Your task to perform on an android device: change the upload size in google photos Image 0: 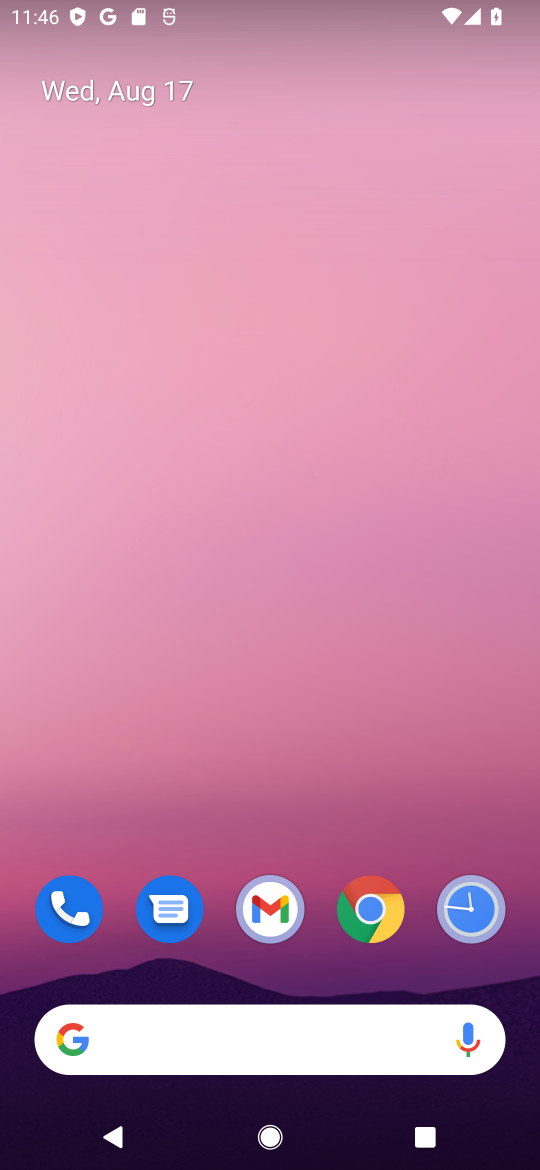
Step 0: drag from (270, 792) to (237, 16)
Your task to perform on an android device: change the upload size in google photos Image 1: 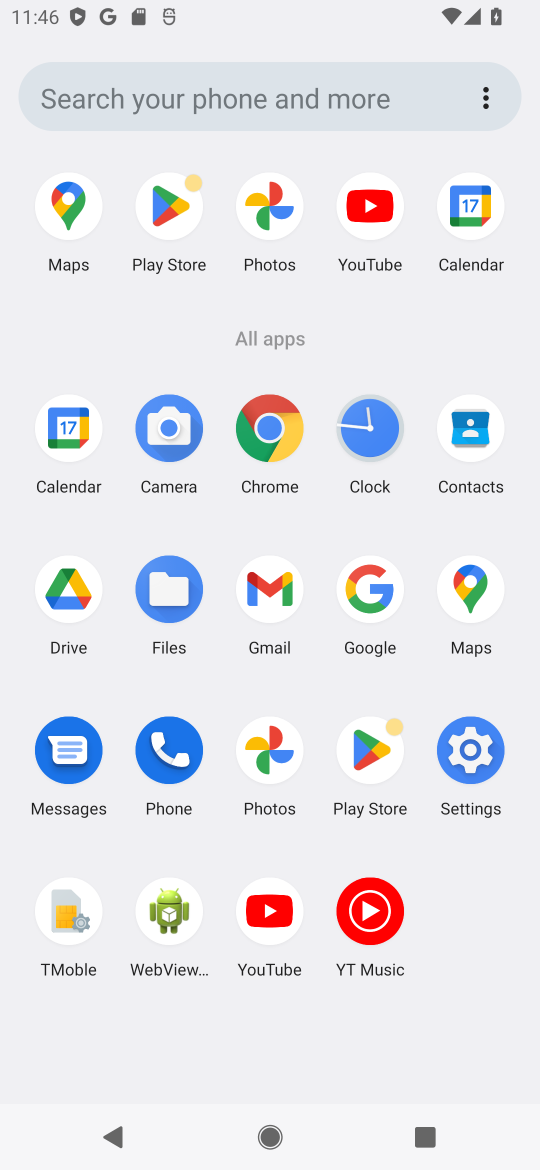
Step 1: click (268, 206)
Your task to perform on an android device: change the upload size in google photos Image 2: 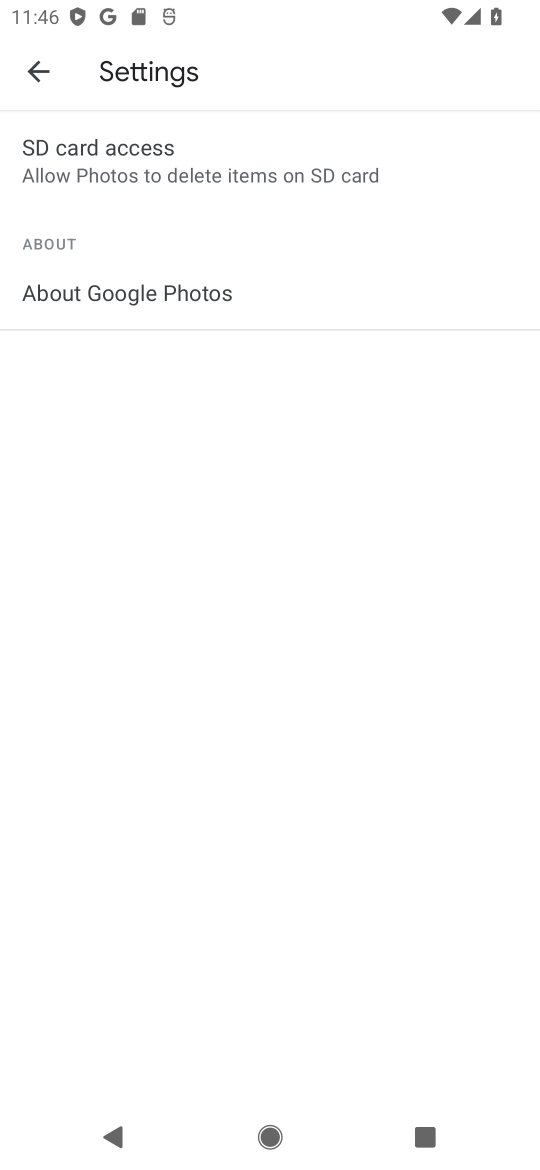
Step 2: click (36, 67)
Your task to perform on an android device: change the upload size in google photos Image 3: 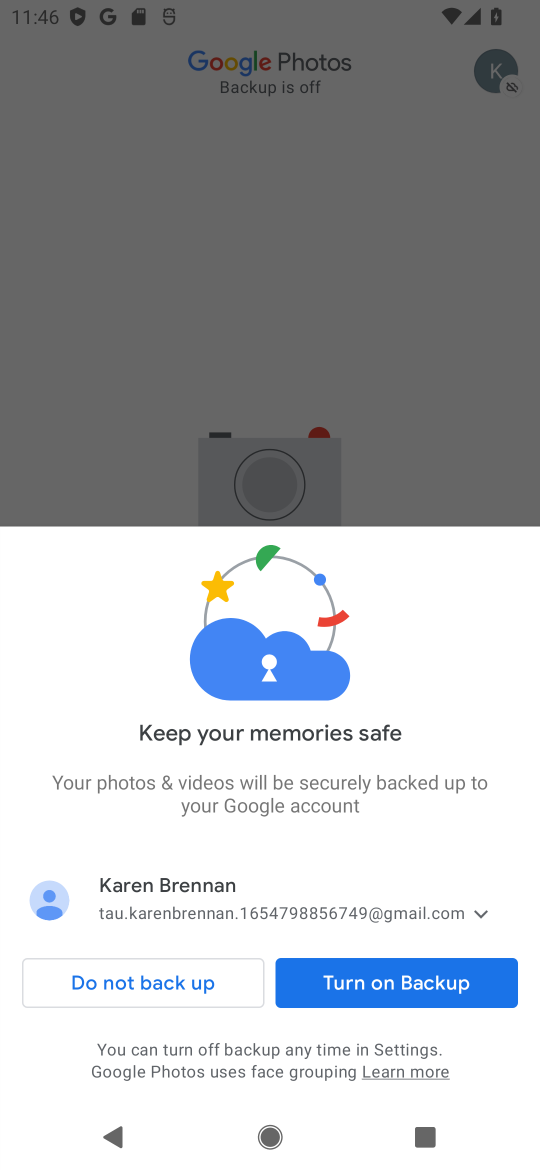
Step 3: click (182, 978)
Your task to perform on an android device: change the upload size in google photos Image 4: 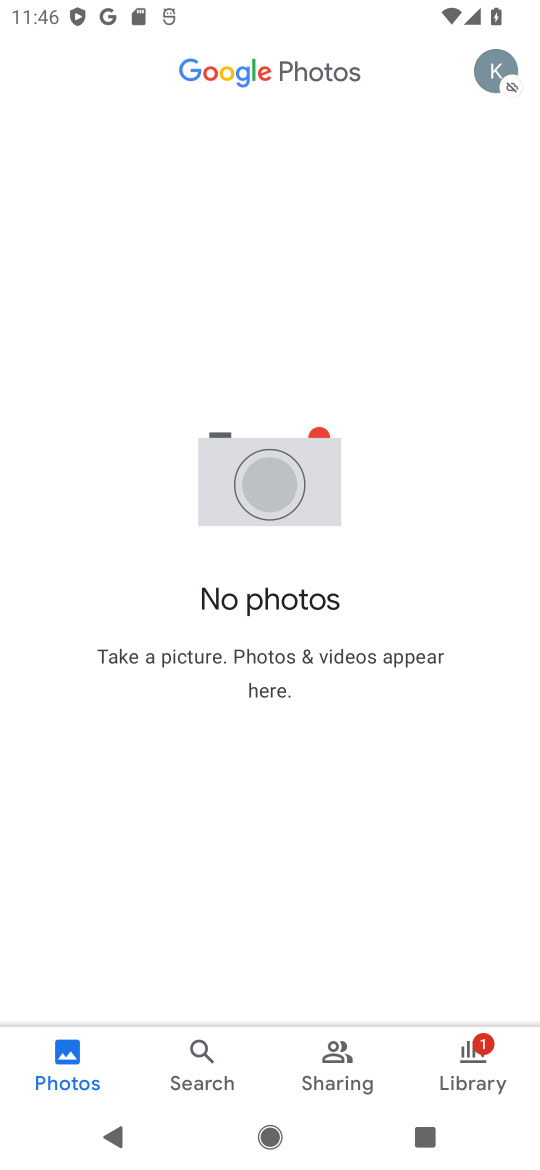
Step 4: click (466, 1062)
Your task to perform on an android device: change the upload size in google photos Image 5: 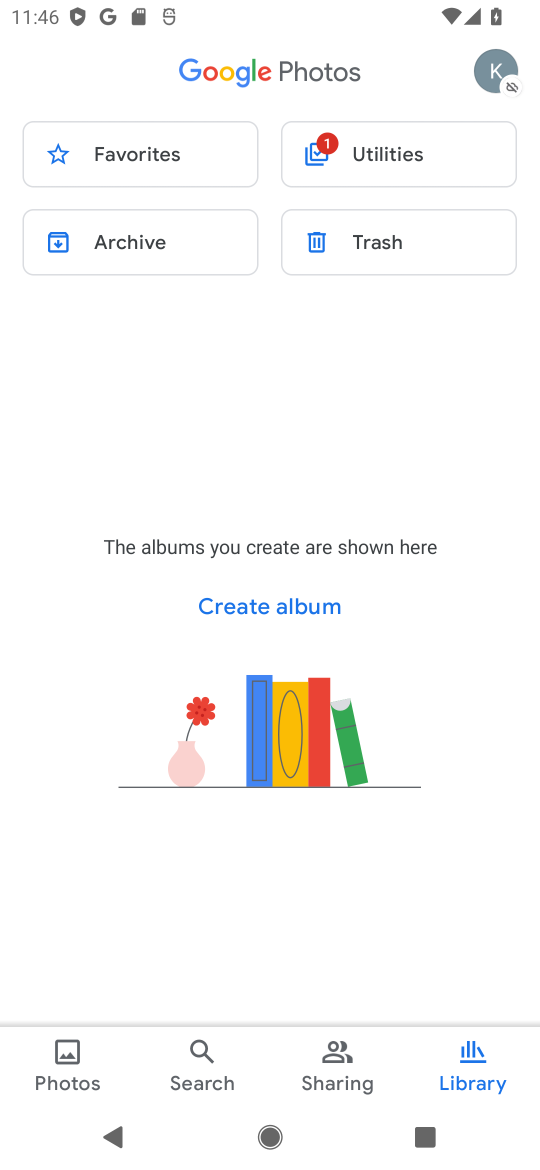
Step 5: click (68, 1060)
Your task to perform on an android device: change the upload size in google photos Image 6: 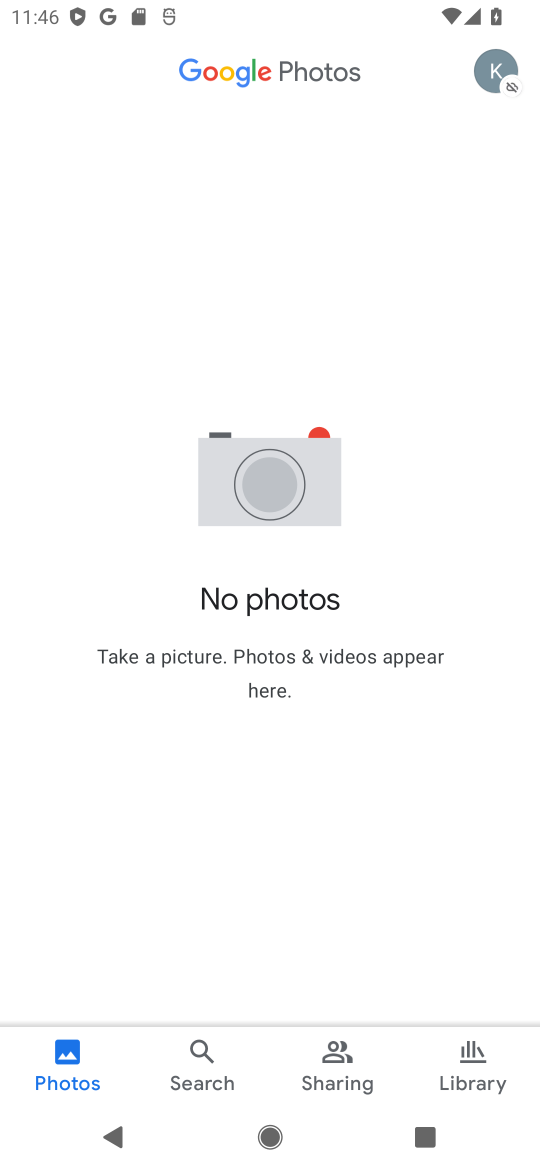
Step 6: click (506, 83)
Your task to perform on an android device: change the upload size in google photos Image 7: 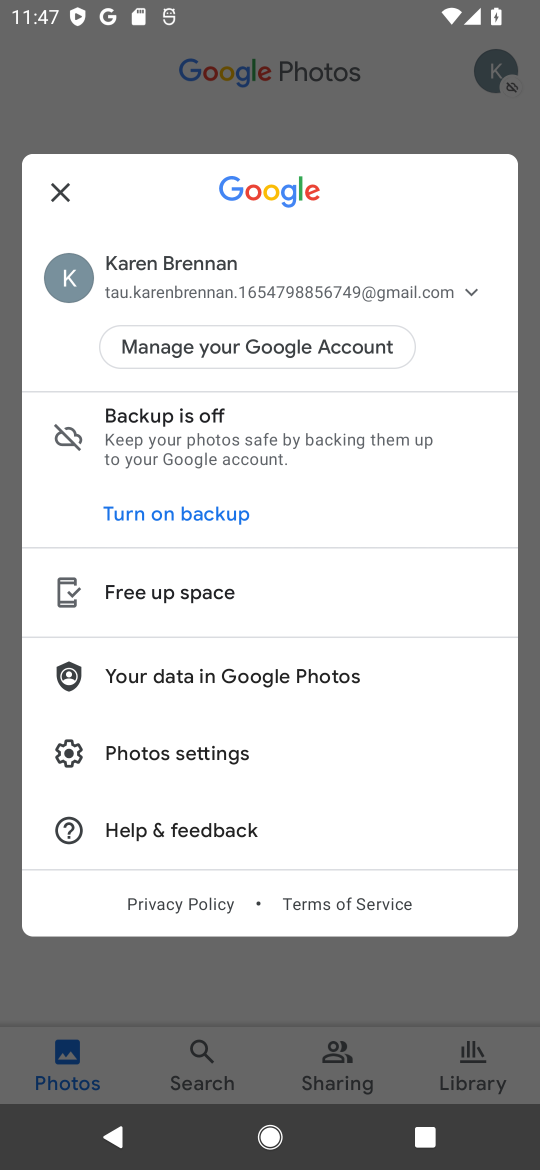
Step 7: click (177, 440)
Your task to perform on an android device: change the upload size in google photos Image 8: 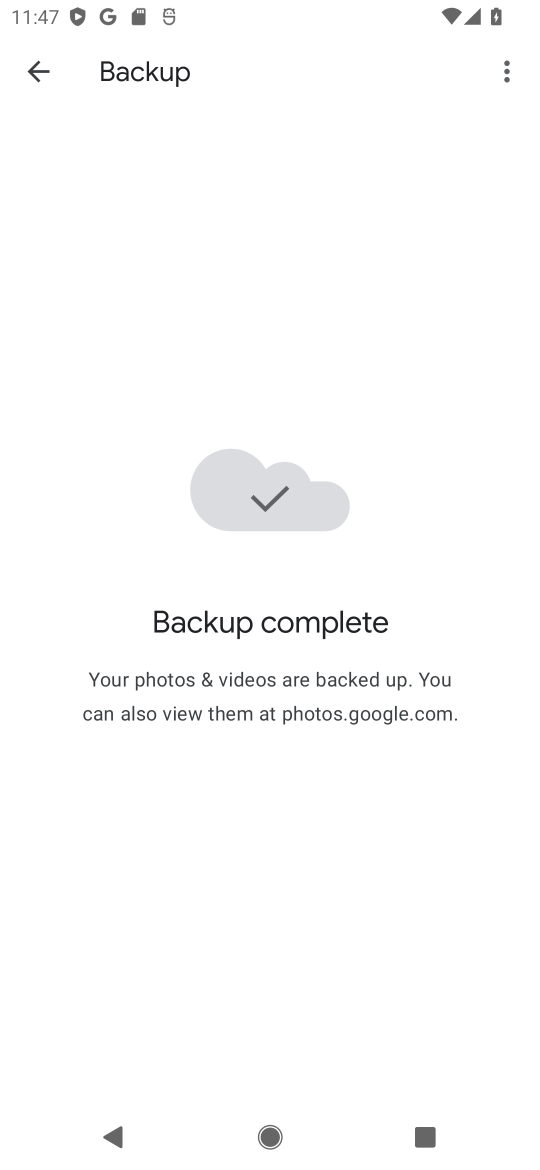
Step 8: click (32, 56)
Your task to perform on an android device: change the upload size in google photos Image 9: 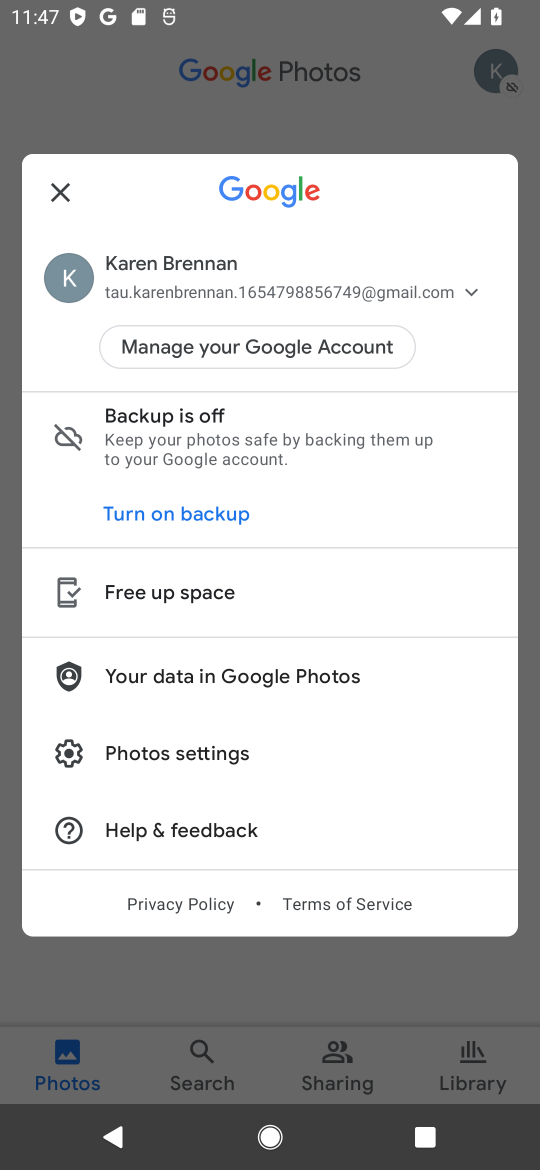
Step 9: click (47, 182)
Your task to perform on an android device: change the upload size in google photos Image 10: 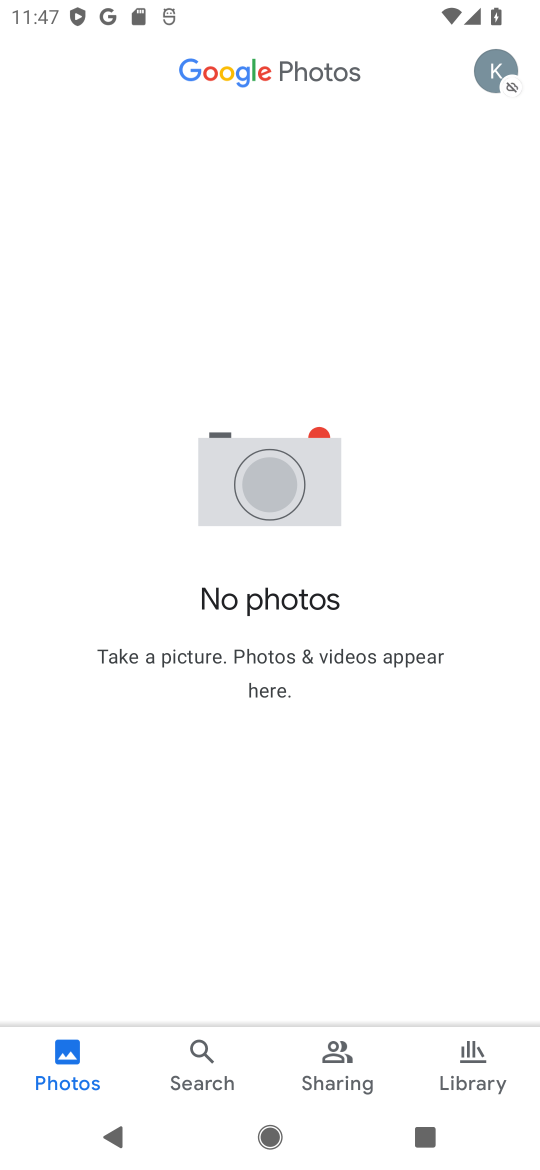
Step 10: task complete